Your task to perform on an android device: Go to notification settings Image 0: 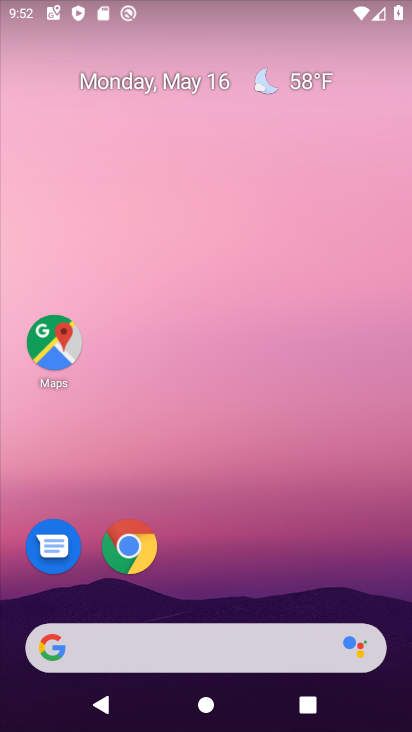
Step 0: drag from (230, 574) to (223, 258)
Your task to perform on an android device: Go to notification settings Image 1: 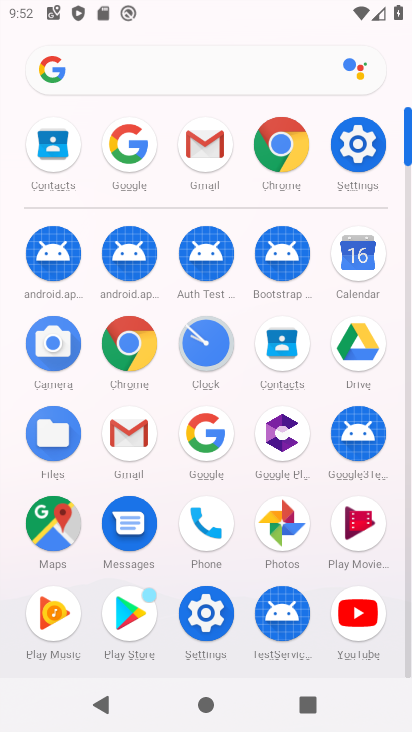
Step 1: click (204, 609)
Your task to perform on an android device: Go to notification settings Image 2: 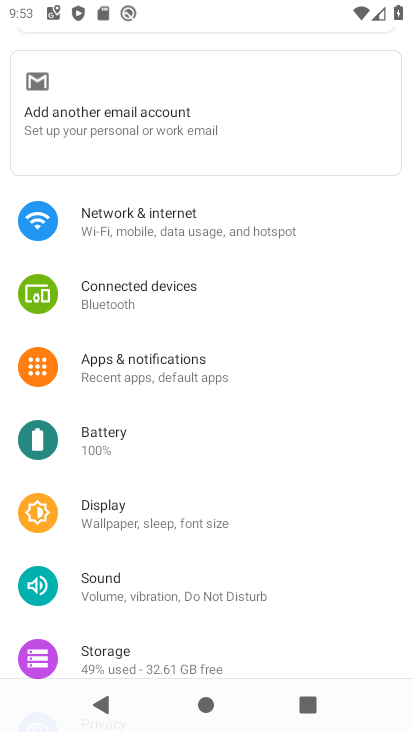
Step 2: click (158, 364)
Your task to perform on an android device: Go to notification settings Image 3: 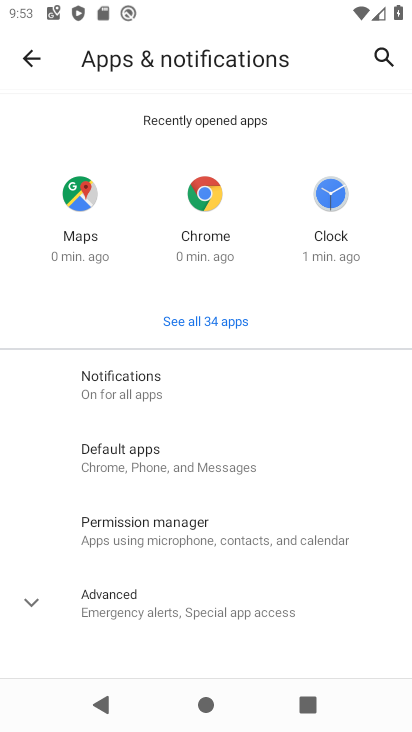
Step 3: click (122, 381)
Your task to perform on an android device: Go to notification settings Image 4: 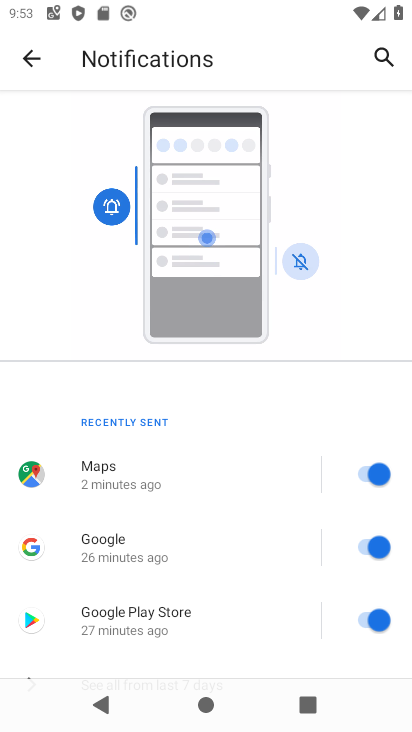
Step 4: task complete